Your task to perform on an android device: change keyboard looks Image 0: 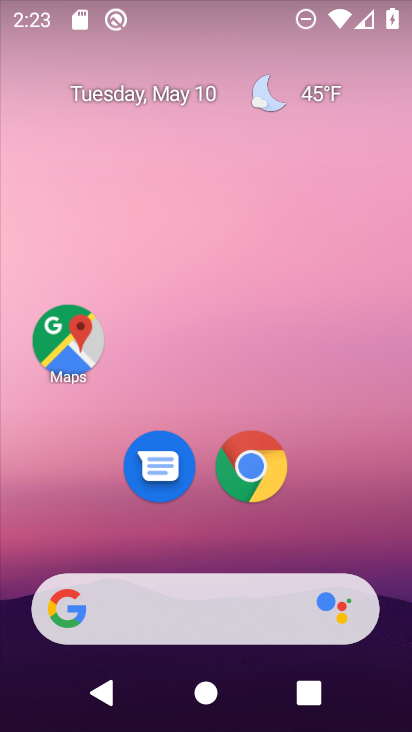
Step 0: drag from (316, 137) to (357, 1)
Your task to perform on an android device: change keyboard looks Image 1: 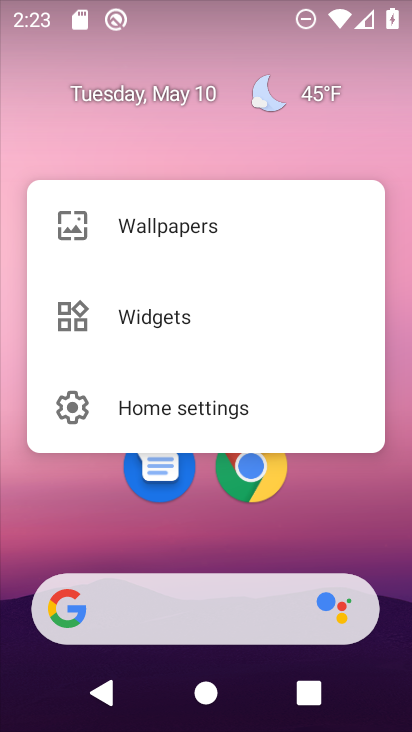
Step 1: drag from (332, 470) to (334, 90)
Your task to perform on an android device: change keyboard looks Image 2: 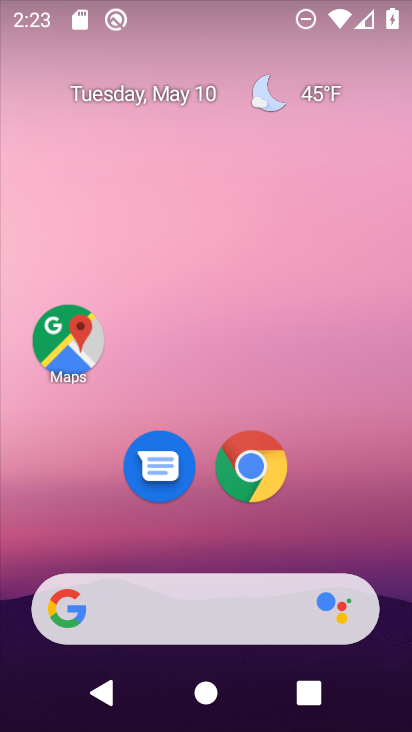
Step 2: drag from (345, 425) to (356, 0)
Your task to perform on an android device: change keyboard looks Image 3: 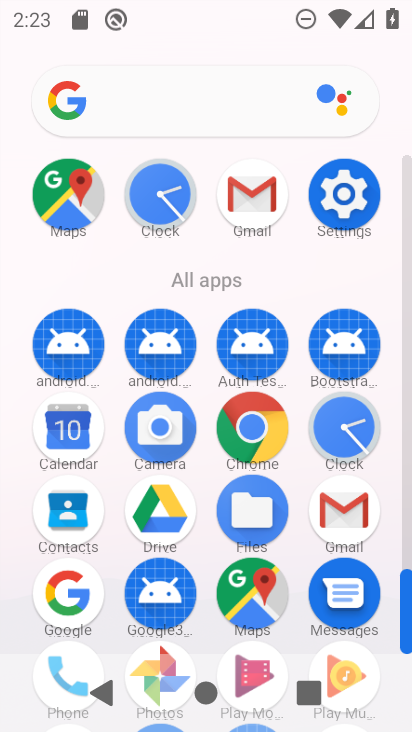
Step 3: click (339, 191)
Your task to perform on an android device: change keyboard looks Image 4: 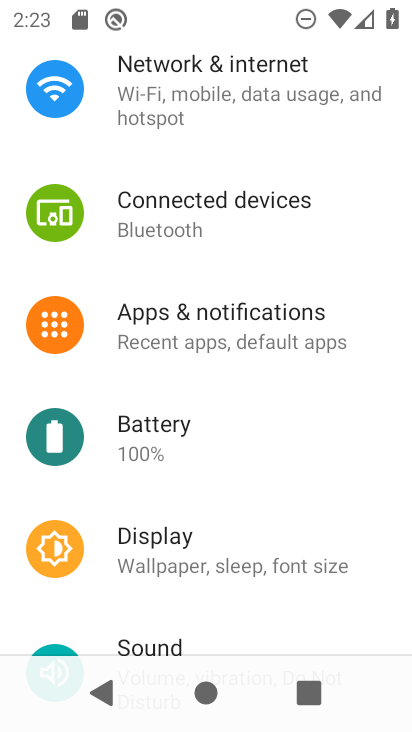
Step 4: drag from (126, 513) to (140, 166)
Your task to perform on an android device: change keyboard looks Image 5: 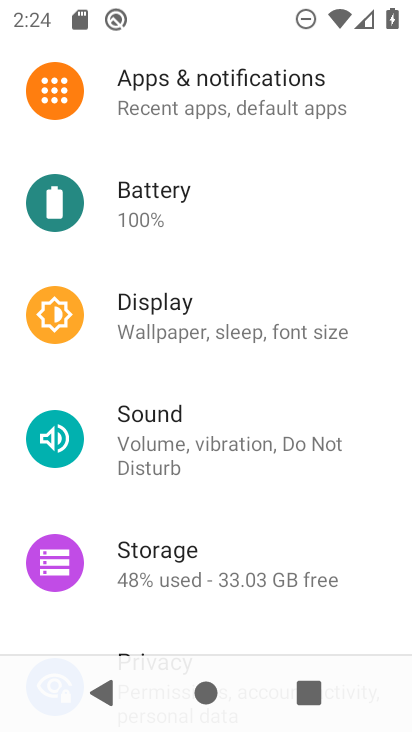
Step 5: drag from (227, 617) to (232, 336)
Your task to perform on an android device: change keyboard looks Image 6: 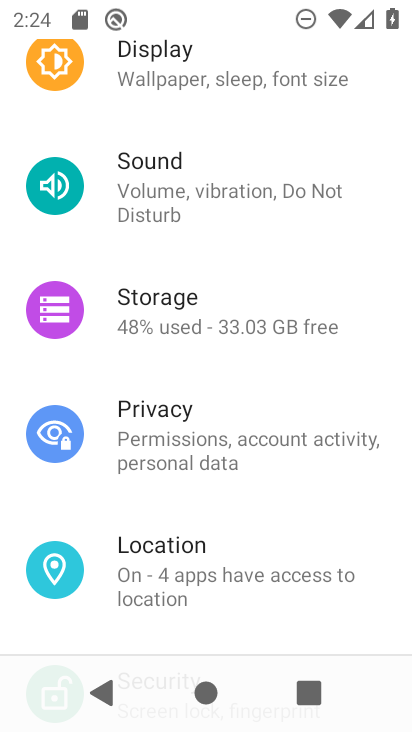
Step 6: drag from (255, 547) to (235, 285)
Your task to perform on an android device: change keyboard looks Image 7: 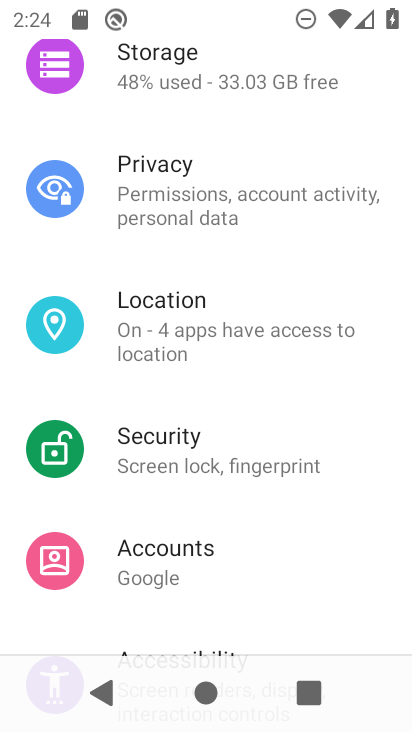
Step 7: drag from (310, 609) to (290, 310)
Your task to perform on an android device: change keyboard looks Image 8: 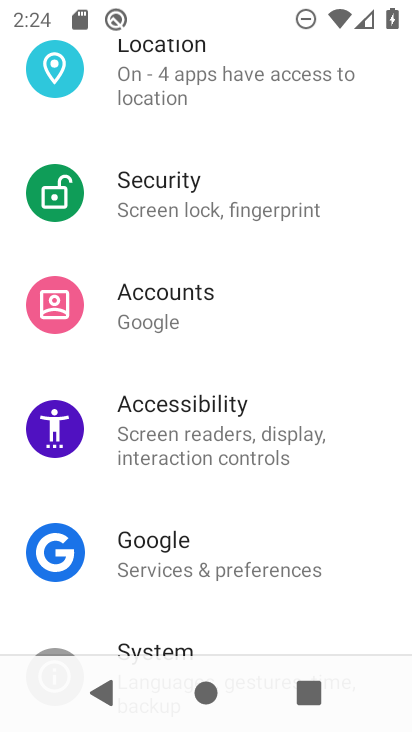
Step 8: drag from (164, 561) to (161, 164)
Your task to perform on an android device: change keyboard looks Image 9: 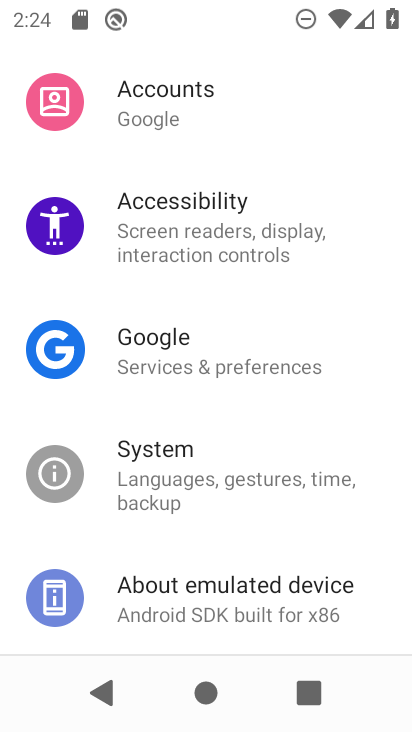
Step 9: click (170, 476)
Your task to perform on an android device: change keyboard looks Image 10: 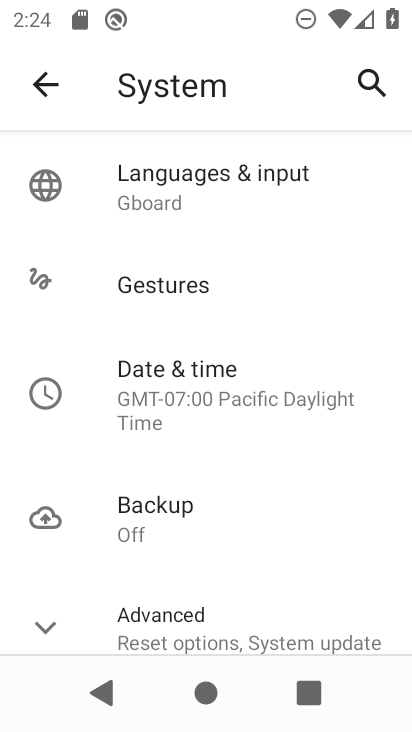
Step 10: click (165, 201)
Your task to perform on an android device: change keyboard looks Image 11: 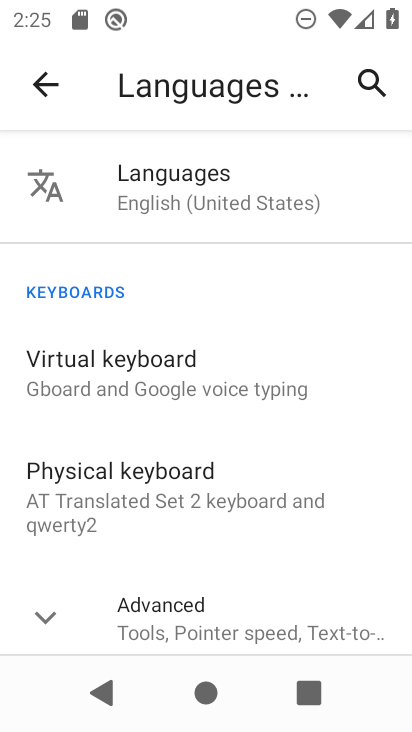
Step 11: click (180, 372)
Your task to perform on an android device: change keyboard looks Image 12: 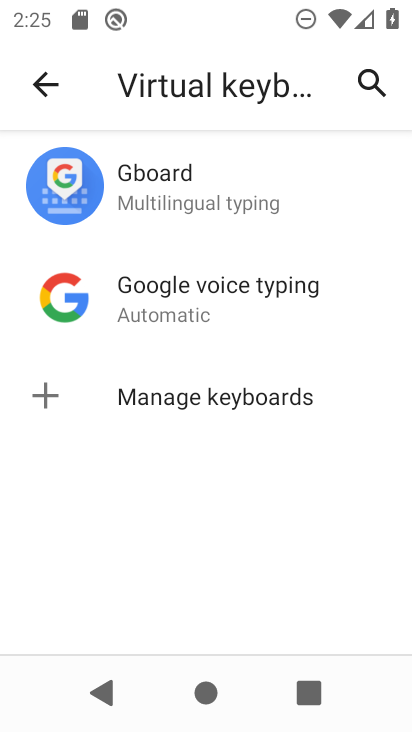
Step 12: click (179, 160)
Your task to perform on an android device: change keyboard looks Image 13: 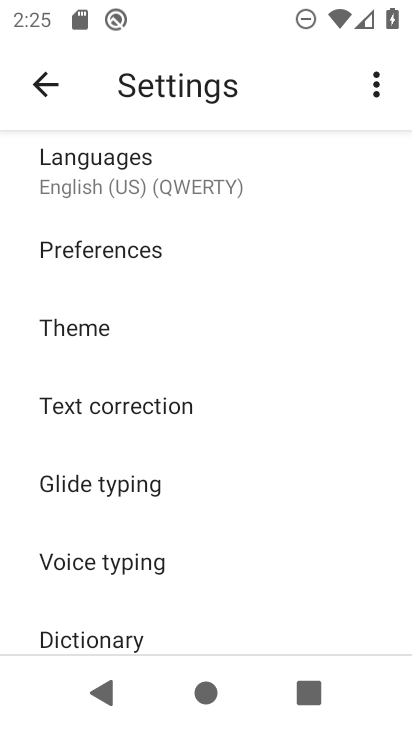
Step 13: click (132, 317)
Your task to perform on an android device: change keyboard looks Image 14: 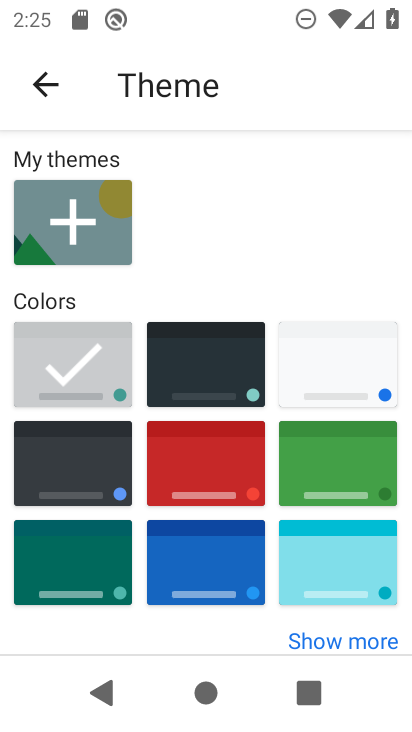
Step 14: click (212, 596)
Your task to perform on an android device: change keyboard looks Image 15: 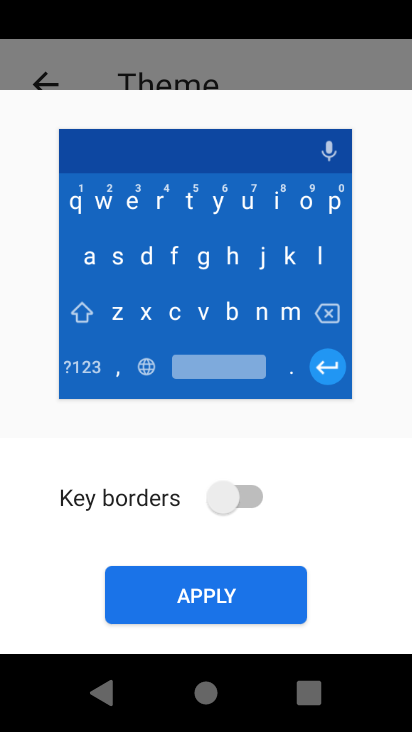
Step 15: click (221, 610)
Your task to perform on an android device: change keyboard looks Image 16: 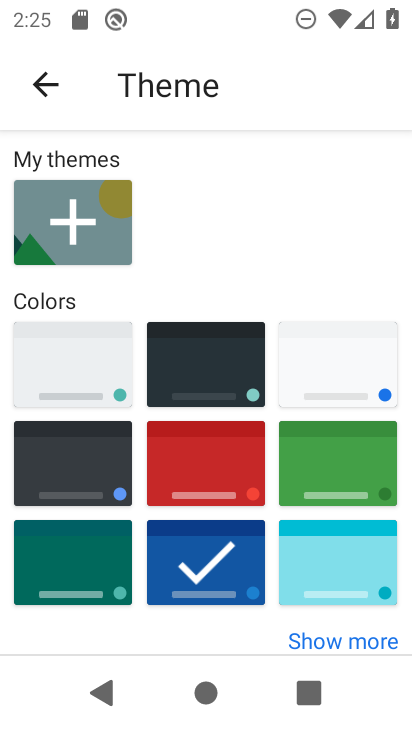
Step 16: task complete